Your task to perform on an android device: delete browsing data in the chrome app Image 0: 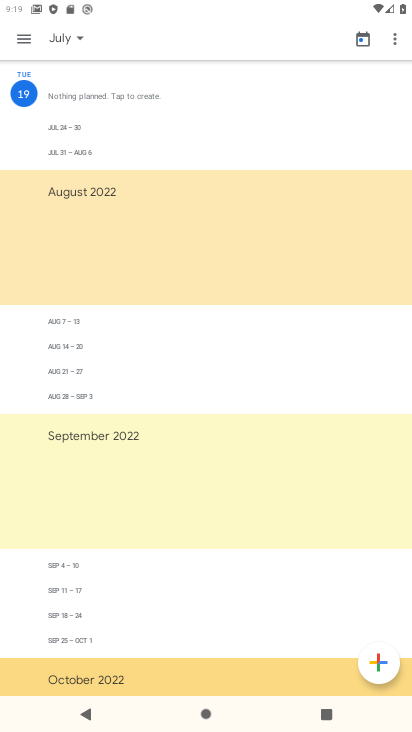
Step 0: press home button
Your task to perform on an android device: delete browsing data in the chrome app Image 1: 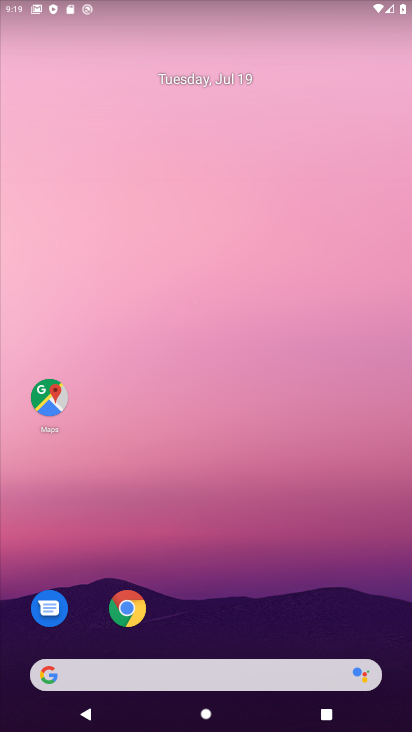
Step 1: drag from (276, 617) to (212, 108)
Your task to perform on an android device: delete browsing data in the chrome app Image 2: 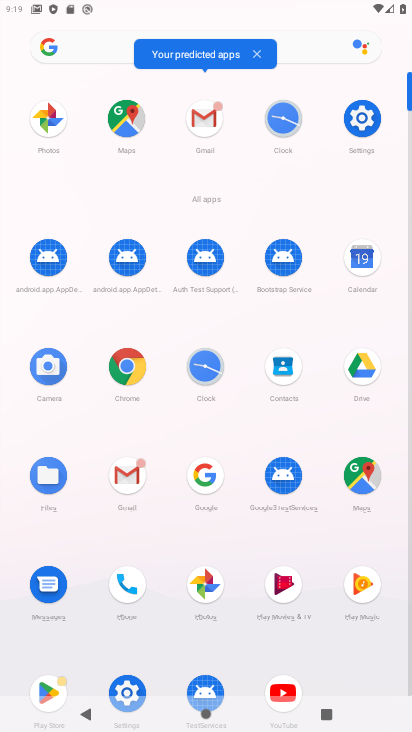
Step 2: click (127, 365)
Your task to perform on an android device: delete browsing data in the chrome app Image 3: 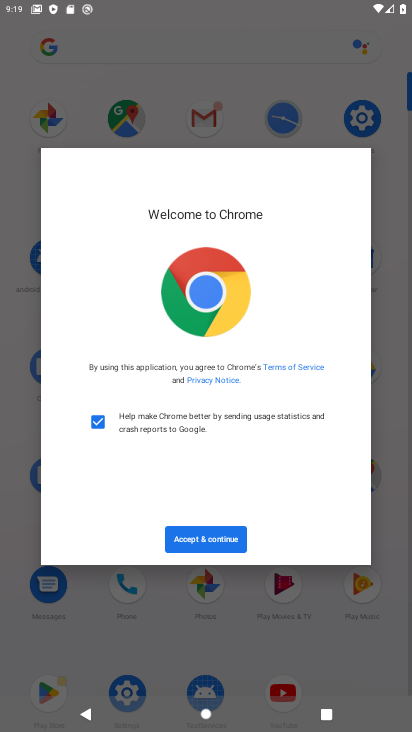
Step 3: click (217, 536)
Your task to perform on an android device: delete browsing data in the chrome app Image 4: 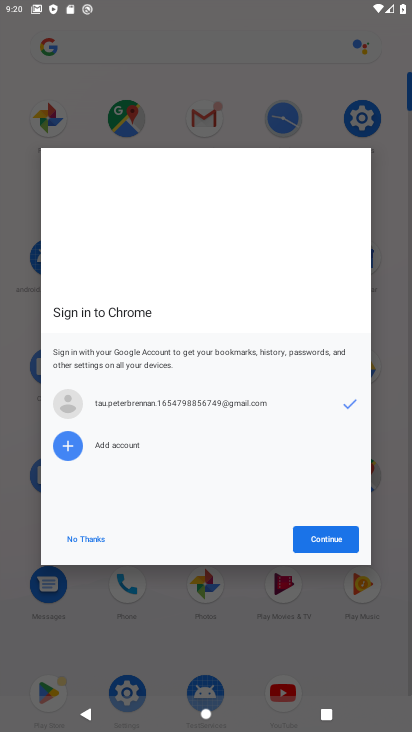
Step 4: click (318, 537)
Your task to perform on an android device: delete browsing data in the chrome app Image 5: 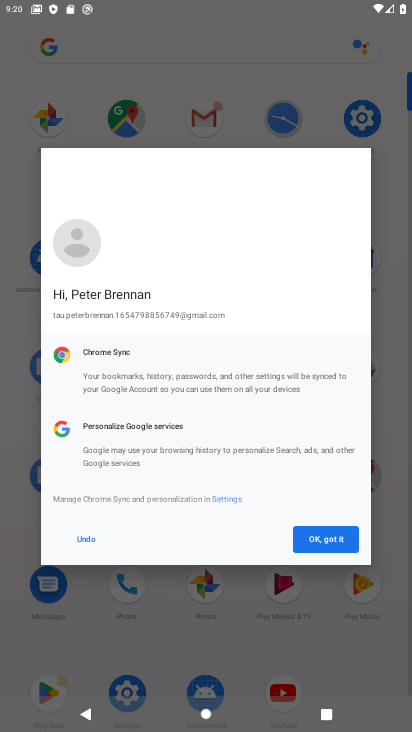
Step 5: click (315, 535)
Your task to perform on an android device: delete browsing data in the chrome app Image 6: 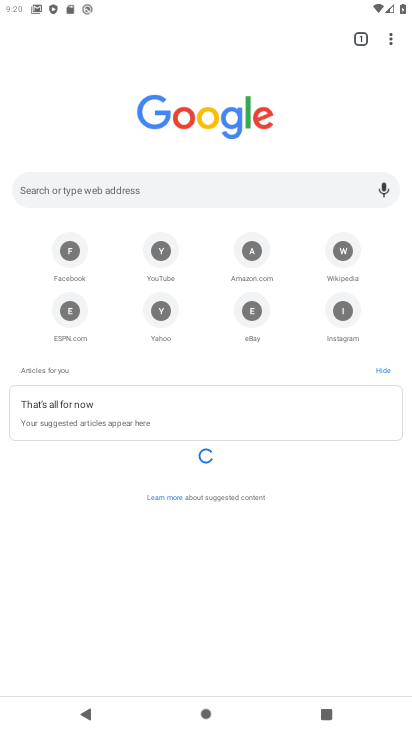
Step 6: drag from (390, 45) to (249, 220)
Your task to perform on an android device: delete browsing data in the chrome app Image 7: 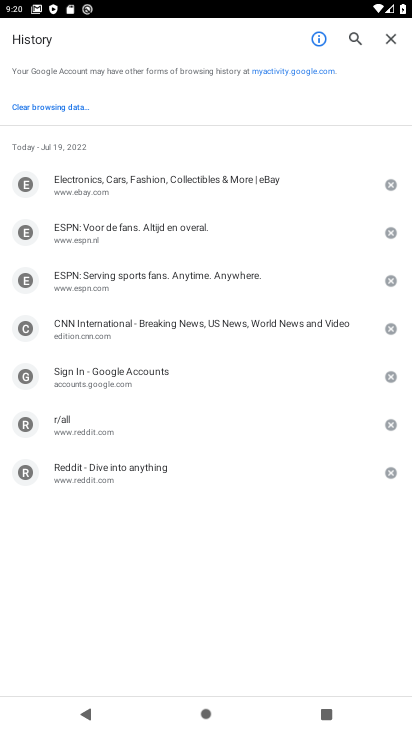
Step 7: click (73, 109)
Your task to perform on an android device: delete browsing data in the chrome app Image 8: 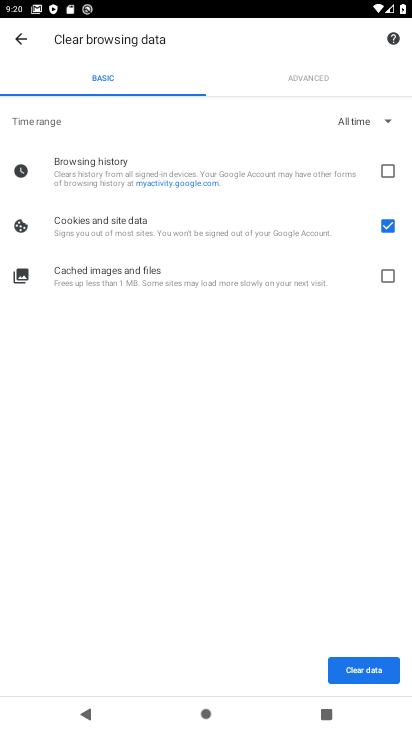
Step 8: click (389, 170)
Your task to perform on an android device: delete browsing data in the chrome app Image 9: 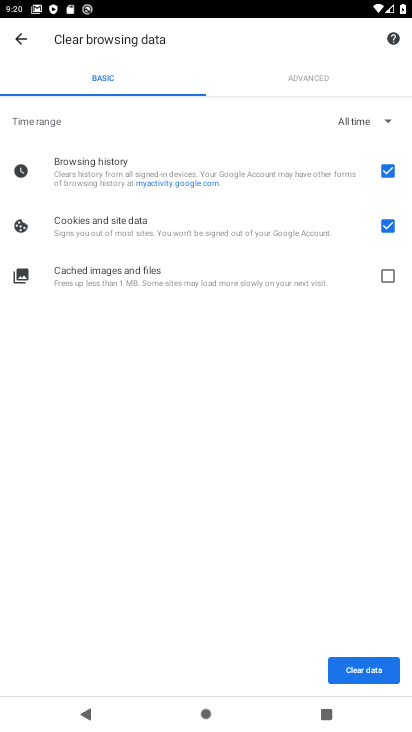
Step 9: click (387, 277)
Your task to perform on an android device: delete browsing data in the chrome app Image 10: 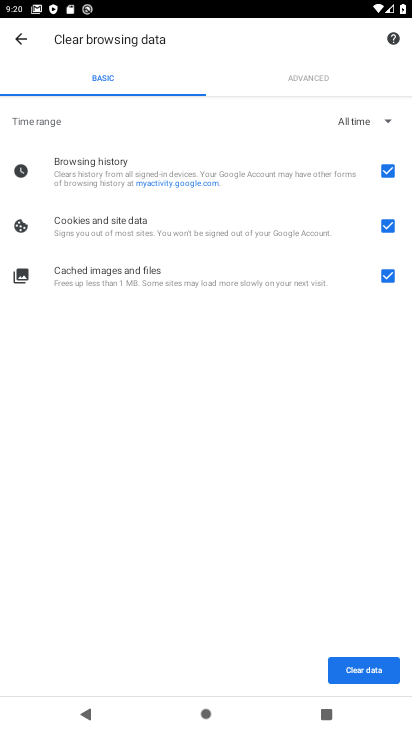
Step 10: click (363, 668)
Your task to perform on an android device: delete browsing data in the chrome app Image 11: 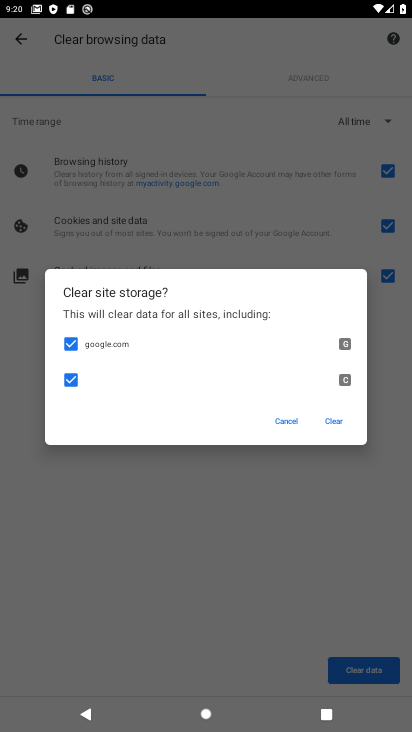
Step 11: click (330, 423)
Your task to perform on an android device: delete browsing data in the chrome app Image 12: 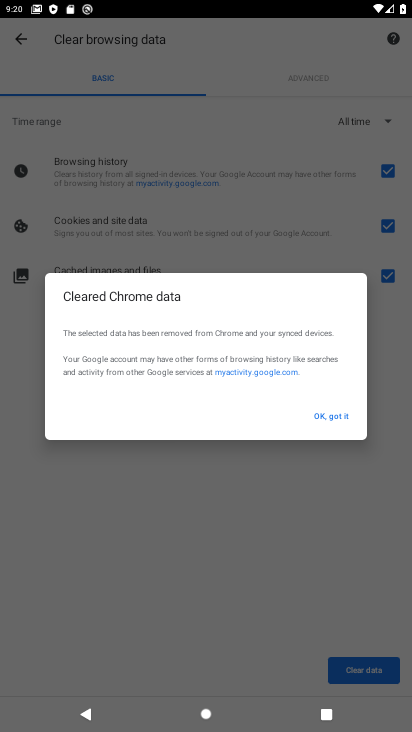
Step 12: task complete